Your task to perform on an android device: change notifications settings Image 0: 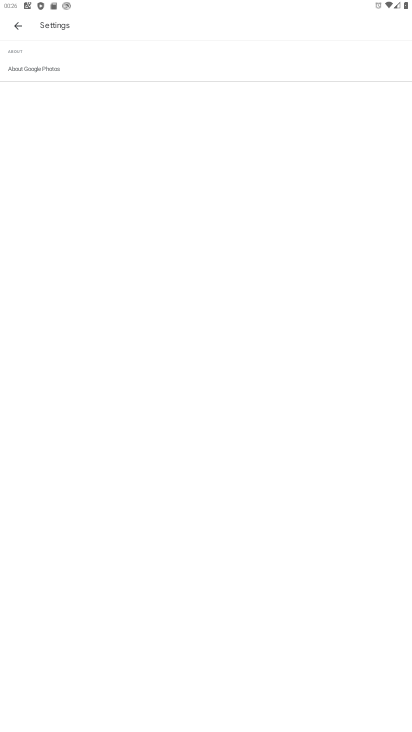
Step 0: press home button
Your task to perform on an android device: change notifications settings Image 1: 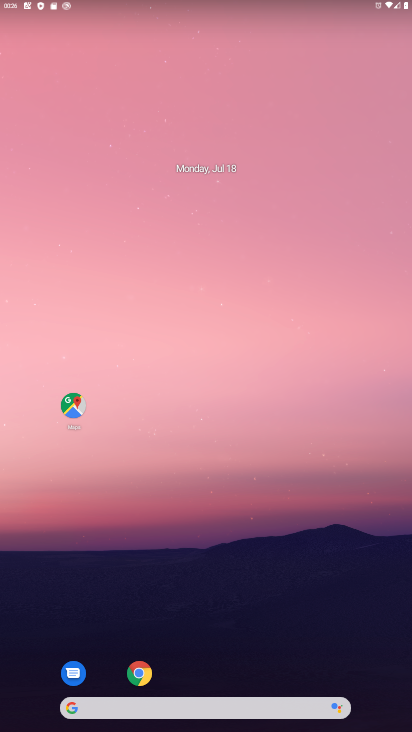
Step 1: drag from (218, 680) to (187, 141)
Your task to perform on an android device: change notifications settings Image 2: 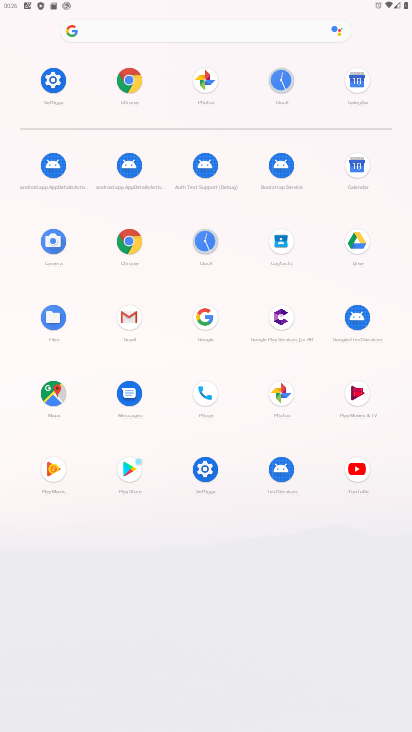
Step 2: click (42, 76)
Your task to perform on an android device: change notifications settings Image 3: 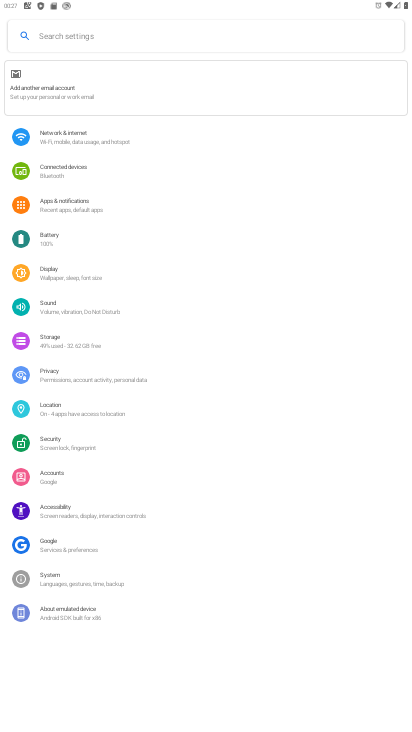
Step 3: click (132, 211)
Your task to perform on an android device: change notifications settings Image 4: 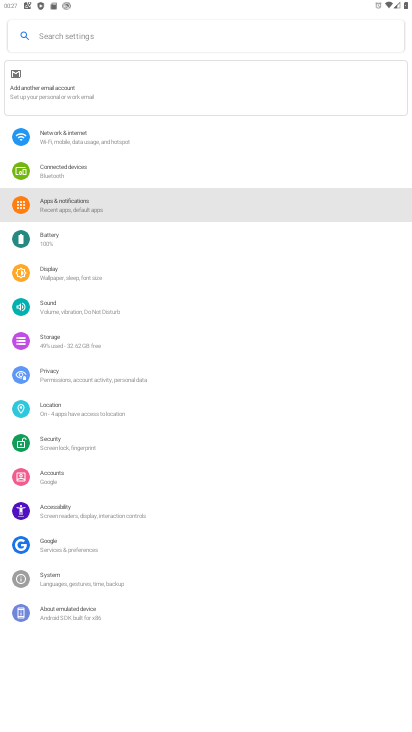
Step 4: task complete